Your task to perform on an android device: Go to internet settings Image 0: 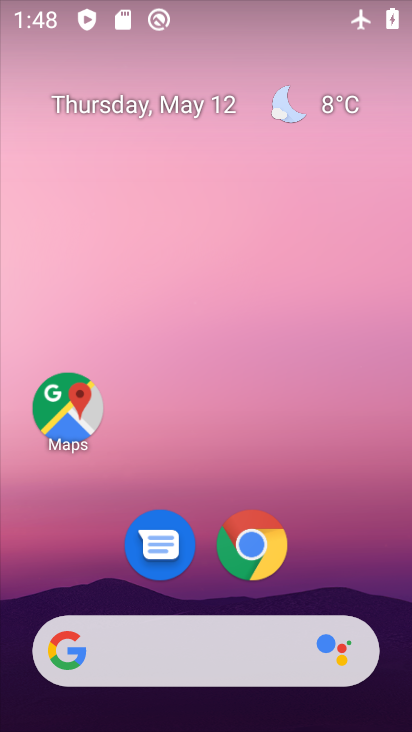
Step 0: drag from (396, 632) to (320, 103)
Your task to perform on an android device: Go to internet settings Image 1: 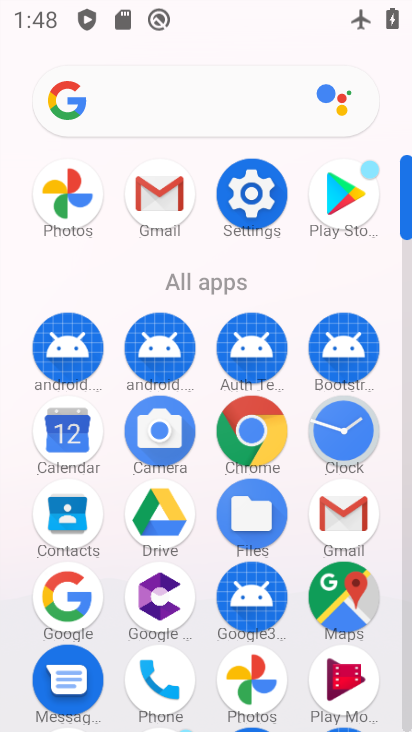
Step 1: click (407, 696)
Your task to perform on an android device: Go to internet settings Image 2: 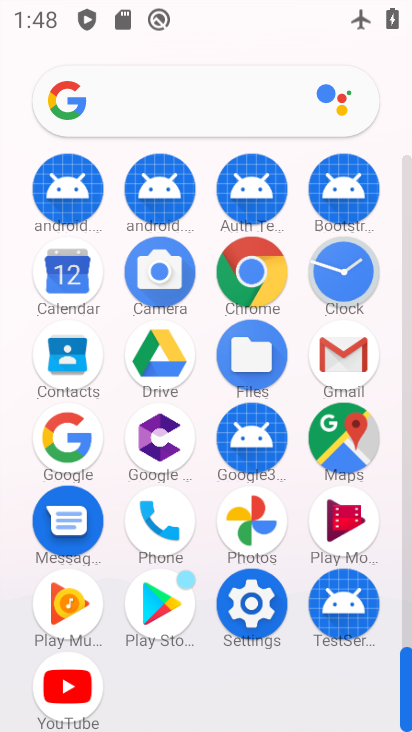
Step 2: click (254, 600)
Your task to perform on an android device: Go to internet settings Image 3: 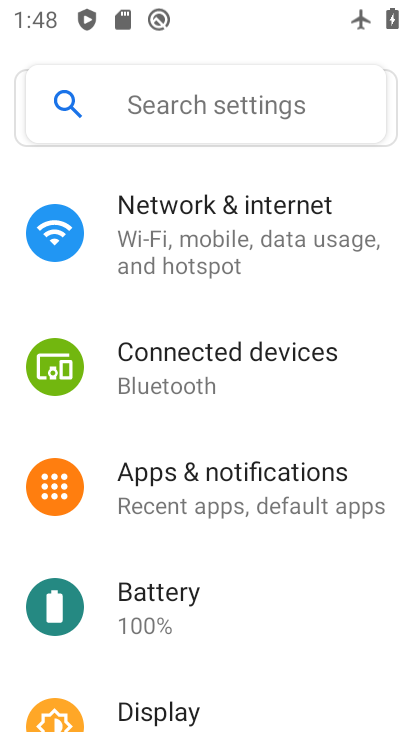
Step 3: click (147, 200)
Your task to perform on an android device: Go to internet settings Image 4: 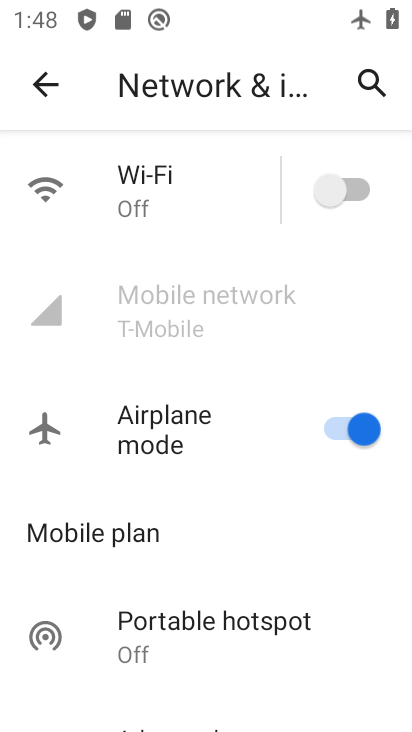
Step 4: drag from (262, 616) to (237, 269)
Your task to perform on an android device: Go to internet settings Image 5: 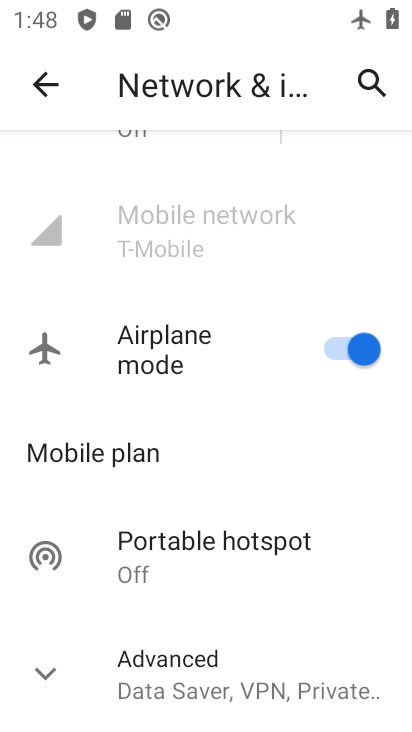
Step 5: click (57, 666)
Your task to perform on an android device: Go to internet settings Image 6: 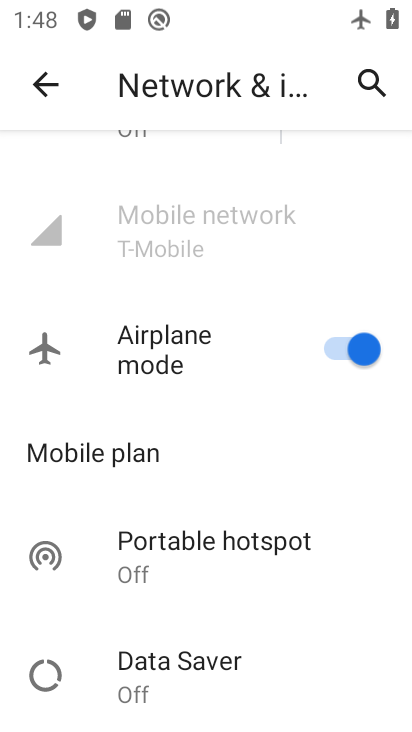
Step 6: task complete